Your task to perform on an android device: turn off notifications settings in the gmail app Image 0: 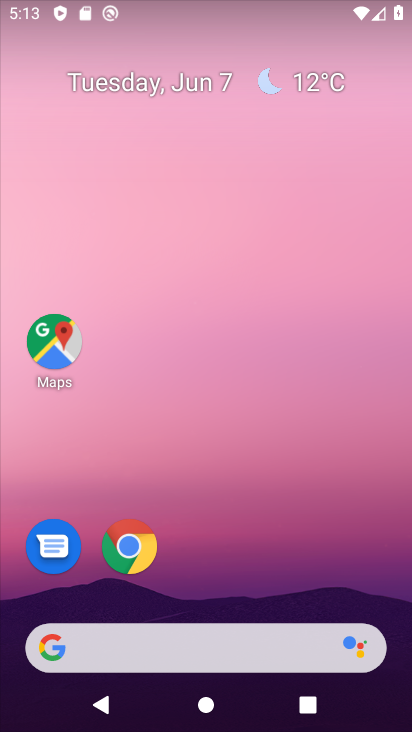
Step 0: drag from (316, 551) to (330, 132)
Your task to perform on an android device: turn off notifications settings in the gmail app Image 1: 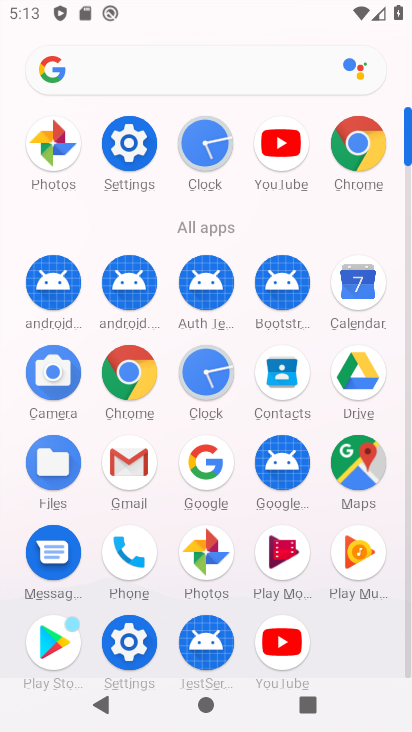
Step 1: click (128, 452)
Your task to perform on an android device: turn off notifications settings in the gmail app Image 2: 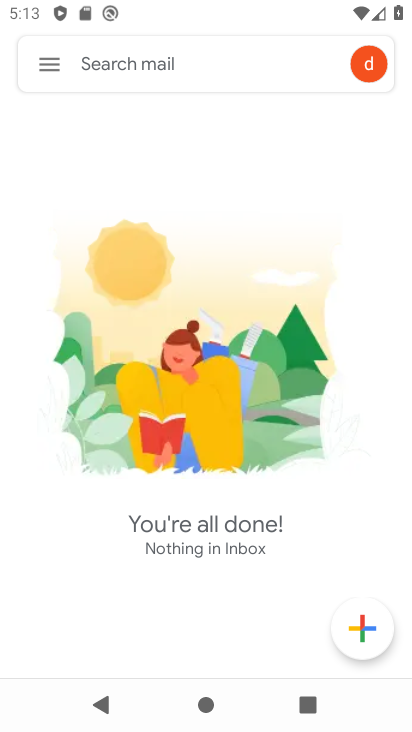
Step 2: press back button
Your task to perform on an android device: turn off notifications settings in the gmail app Image 3: 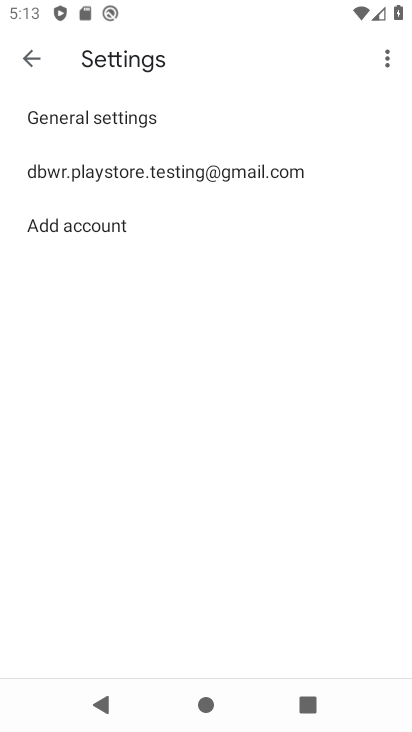
Step 3: press home button
Your task to perform on an android device: turn off notifications settings in the gmail app Image 4: 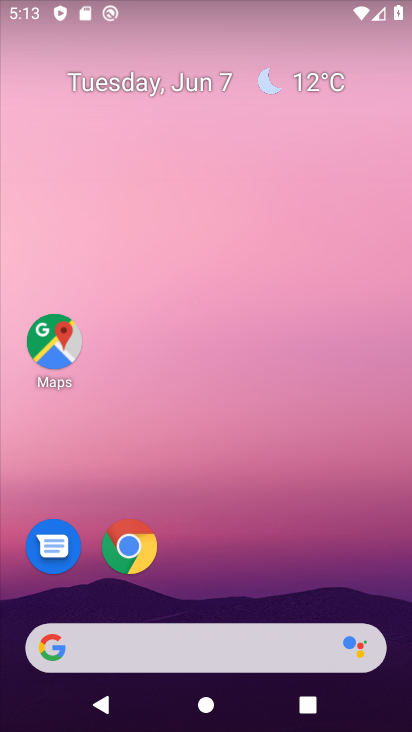
Step 4: drag from (279, 552) to (326, 122)
Your task to perform on an android device: turn off notifications settings in the gmail app Image 5: 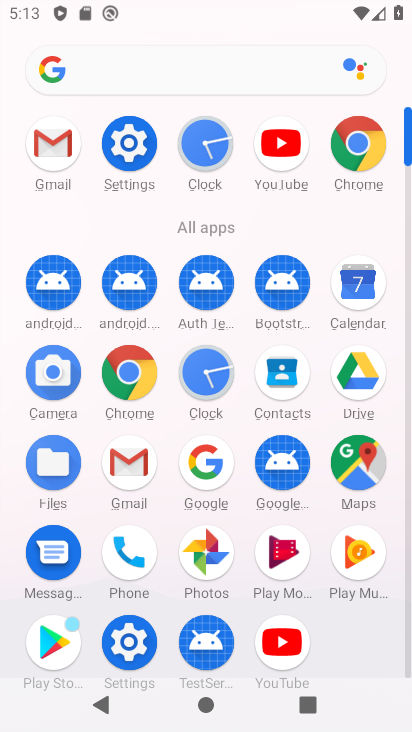
Step 5: click (128, 461)
Your task to perform on an android device: turn off notifications settings in the gmail app Image 6: 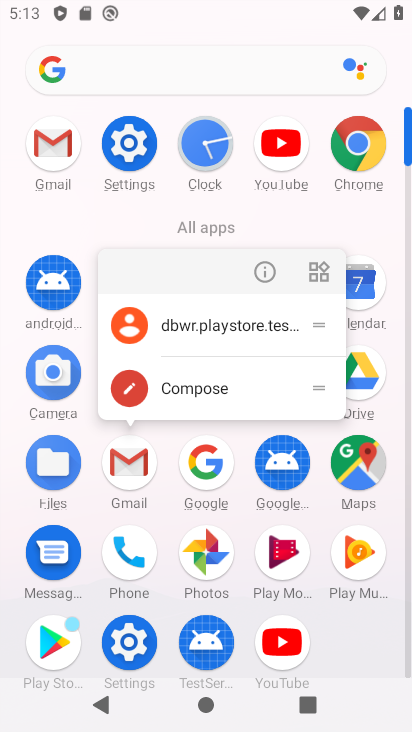
Step 6: click (264, 267)
Your task to perform on an android device: turn off notifications settings in the gmail app Image 7: 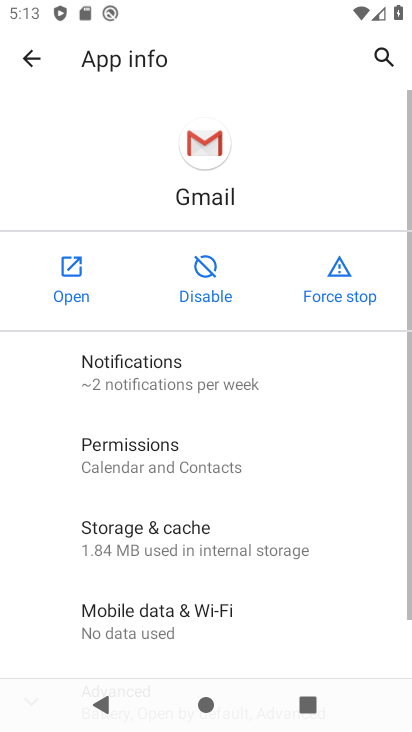
Step 7: click (225, 371)
Your task to perform on an android device: turn off notifications settings in the gmail app Image 8: 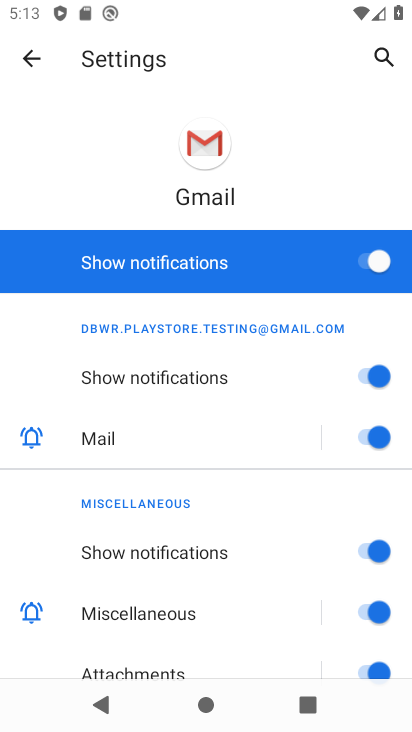
Step 8: click (363, 253)
Your task to perform on an android device: turn off notifications settings in the gmail app Image 9: 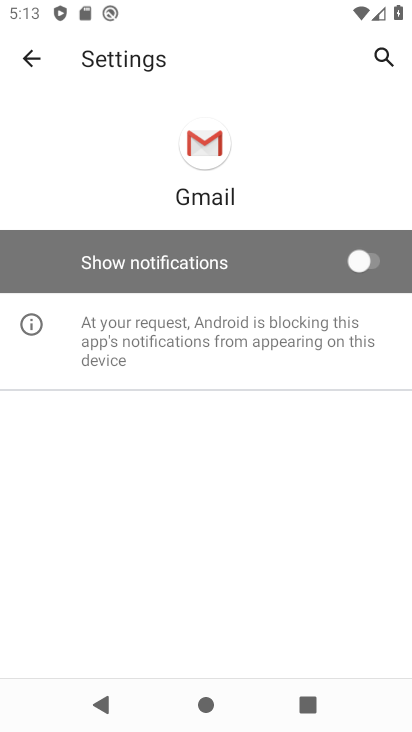
Step 9: task complete